Your task to perform on an android device: Go to display settings Image 0: 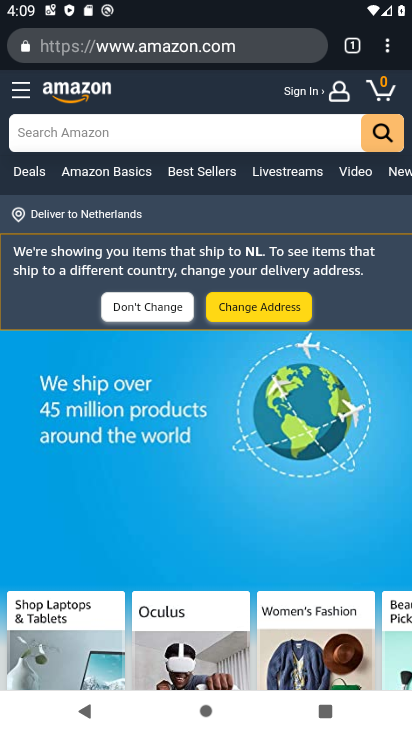
Step 0: press home button
Your task to perform on an android device: Go to display settings Image 1: 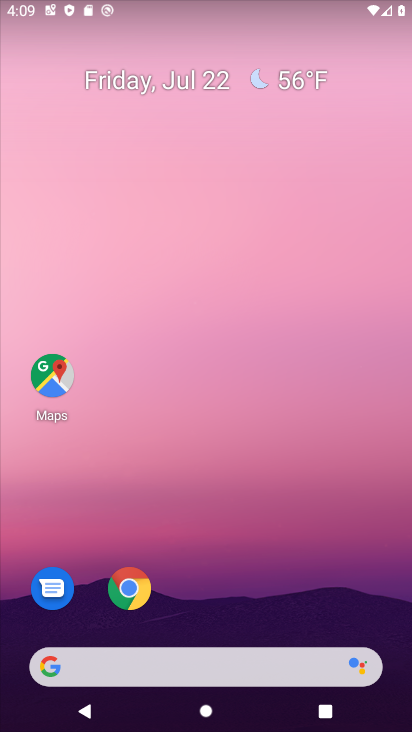
Step 1: drag from (210, 593) to (225, 188)
Your task to perform on an android device: Go to display settings Image 2: 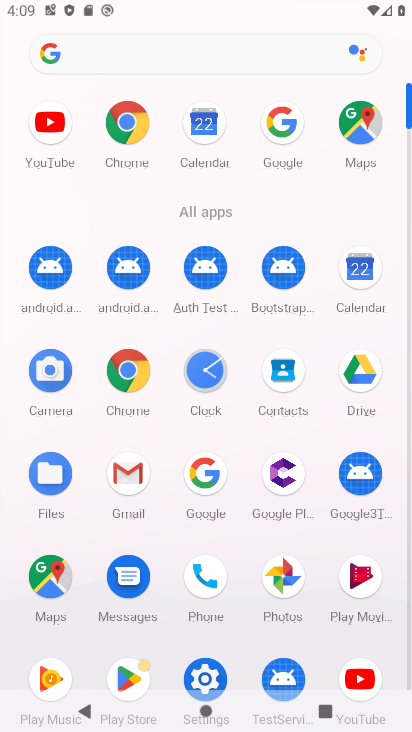
Step 2: click (204, 670)
Your task to perform on an android device: Go to display settings Image 3: 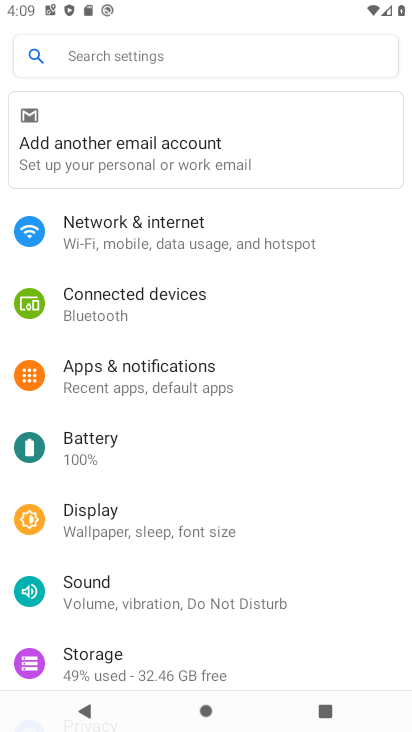
Step 3: click (146, 525)
Your task to perform on an android device: Go to display settings Image 4: 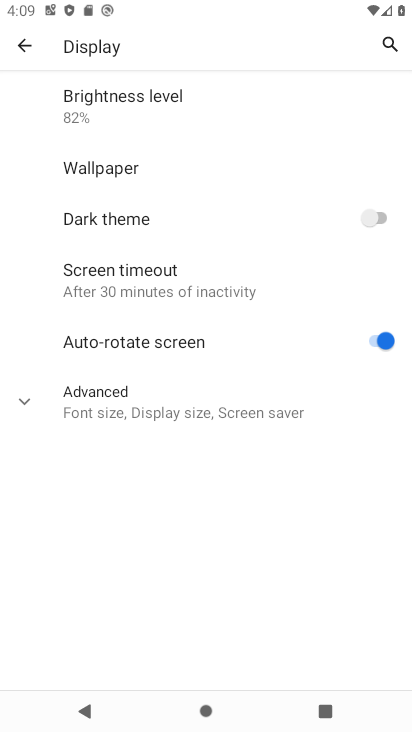
Step 4: task complete